Your task to perform on an android device: Go to battery settings Image 0: 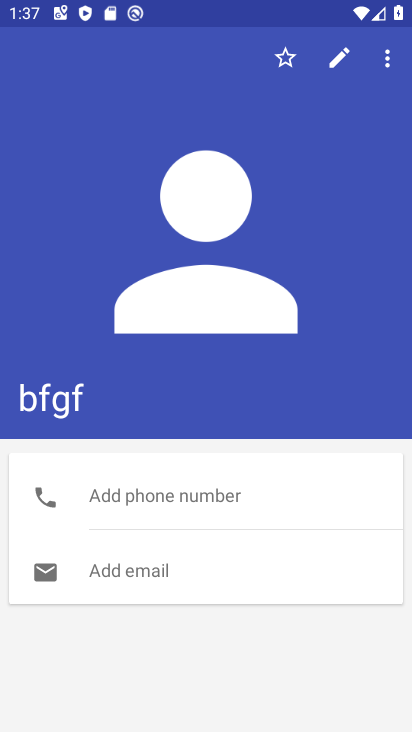
Step 0: press home button
Your task to perform on an android device: Go to battery settings Image 1: 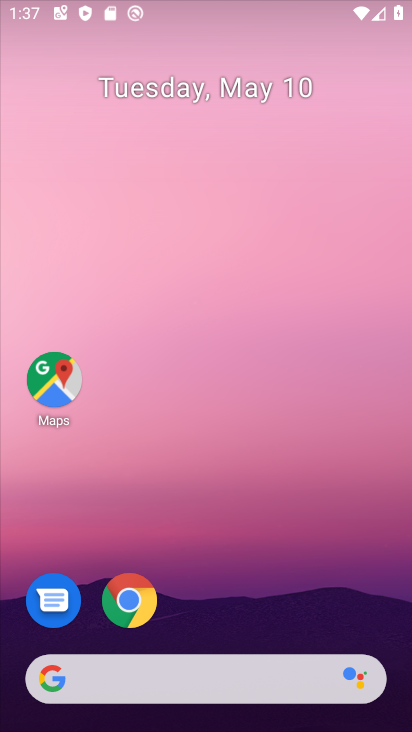
Step 1: drag from (252, 607) to (319, 18)
Your task to perform on an android device: Go to battery settings Image 2: 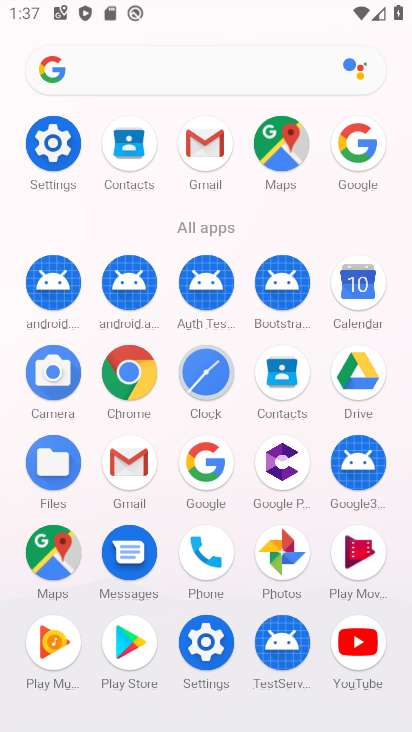
Step 2: click (56, 133)
Your task to perform on an android device: Go to battery settings Image 3: 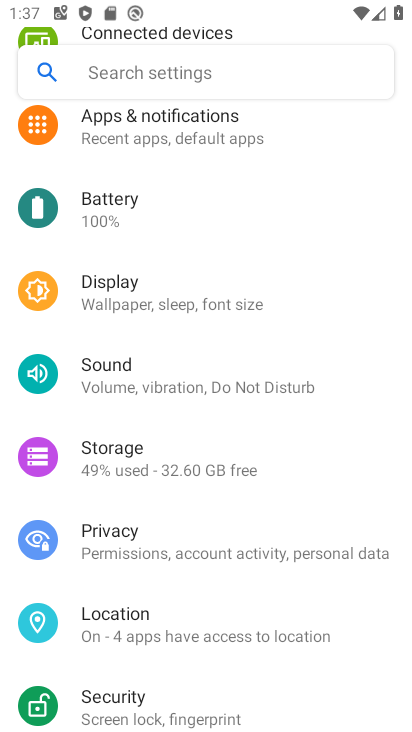
Step 3: drag from (209, 638) to (246, 613)
Your task to perform on an android device: Go to battery settings Image 4: 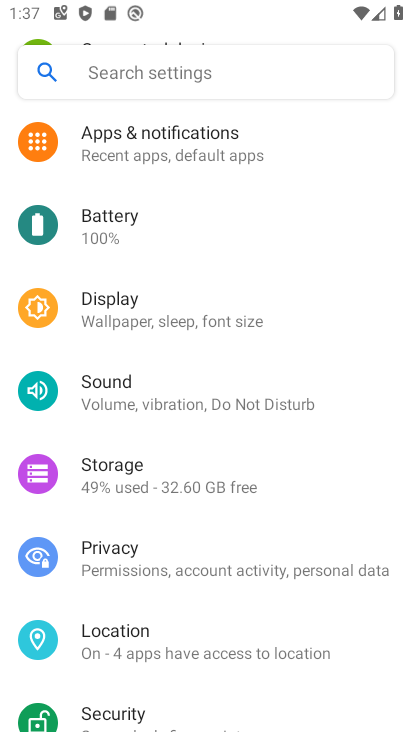
Step 4: click (143, 230)
Your task to perform on an android device: Go to battery settings Image 5: 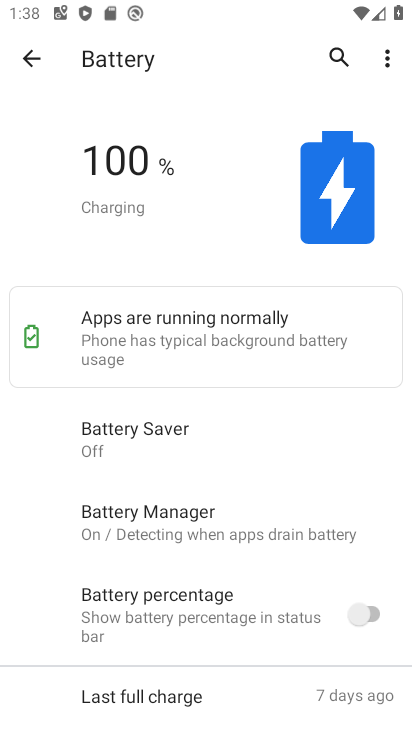
Step 5: task complete